Your task to perform on an android device: turn on improve location accuracy Image 0: 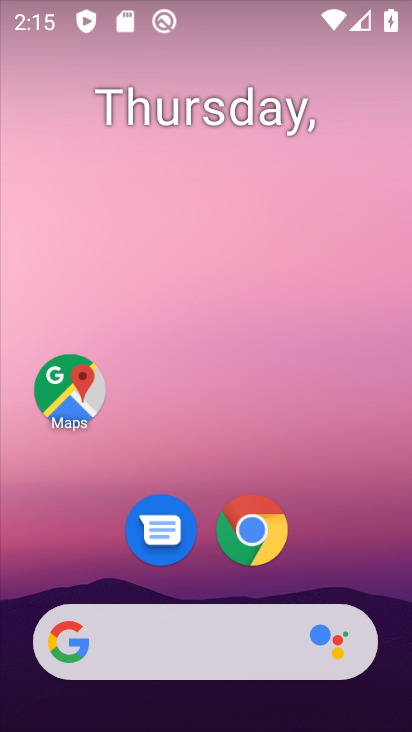
Step 0: drag from (216, 715) to (181, 20)
Your task to perform on an android device: turn on improve location accuracy Image 1: 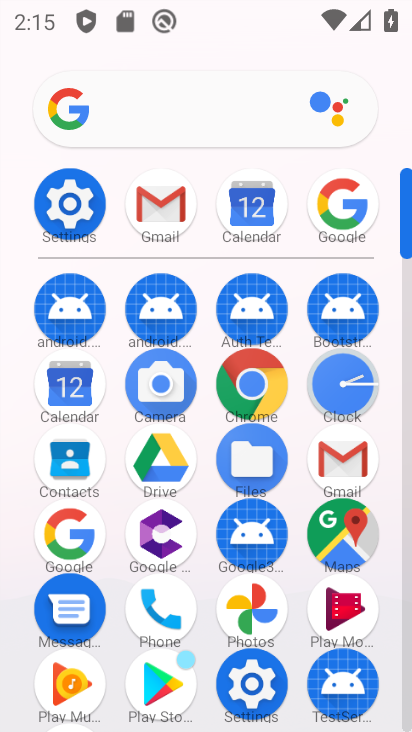
Step 1: click (73, 205)
Your task to perform on an android device: turn on improve location accuracy Image 2: 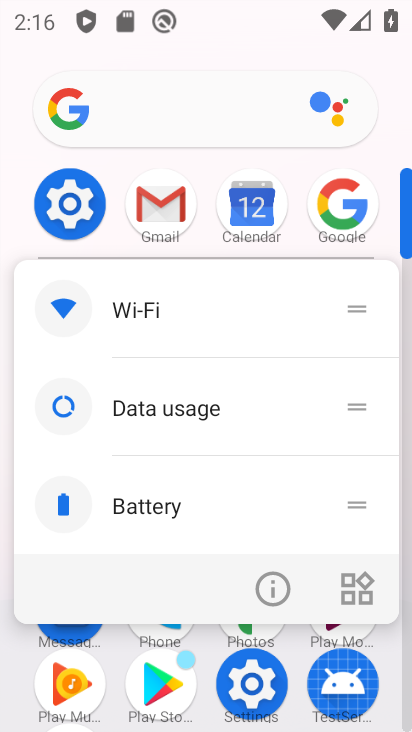
Step 2: click (73, 205)
Your task to perform on an android device: turn on improve location accuracy Image 3: 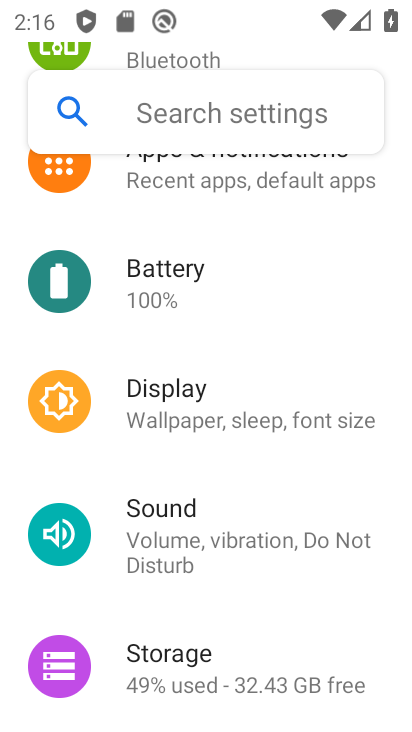
Step 3: drag from (225, 642) to (168, 115)
Your task to perform on an android device: turn on improve location accuracy Image 4: 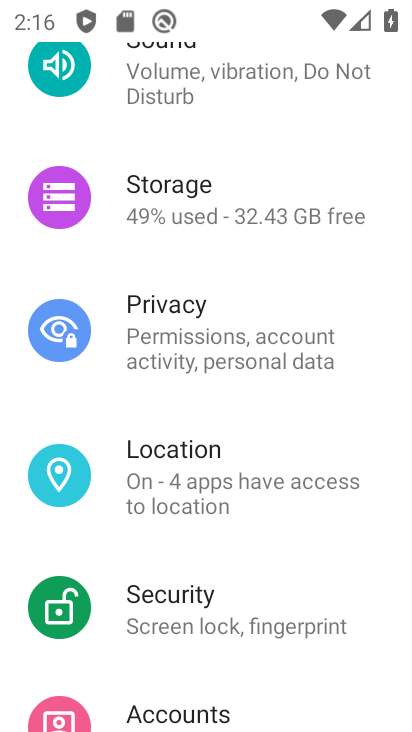
Step 4: click (244, 482)
Your task to perform on an android device: turn on improve location accuracy Image 5: 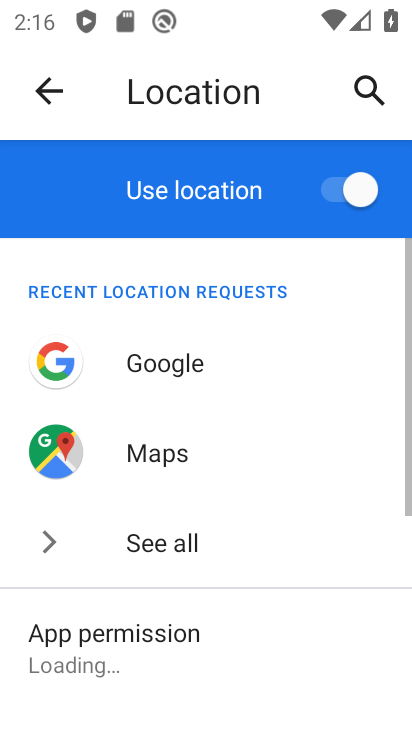
Step 5: drag from (208, 674) to (148, 282)
Your task to perform on an android device: turn on improve location accuracy Image 6: 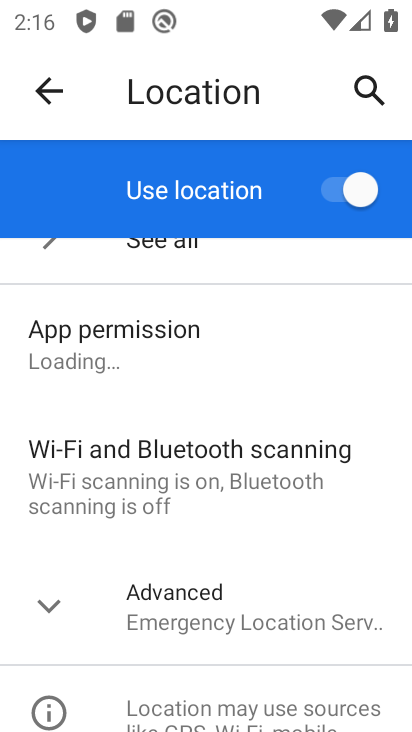
Step 6: click (252, 614)
Your task to perform on an android device: turn on improve location accuracy Image 7: 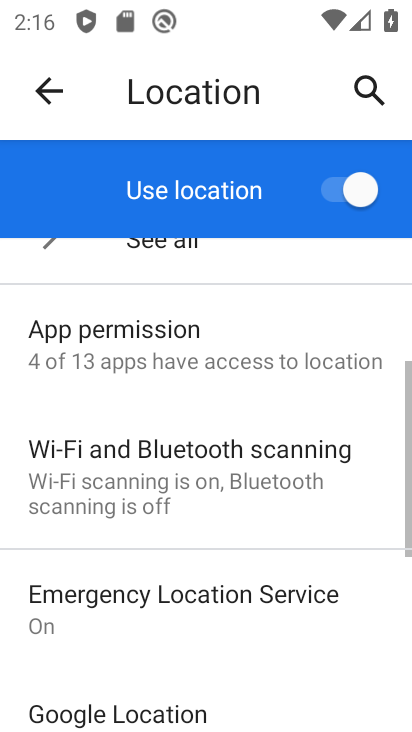
Step 7: drag from (329, 700) to (293, 78)
Your task to perform on an android device: turn on improve location accuracy Image 8: 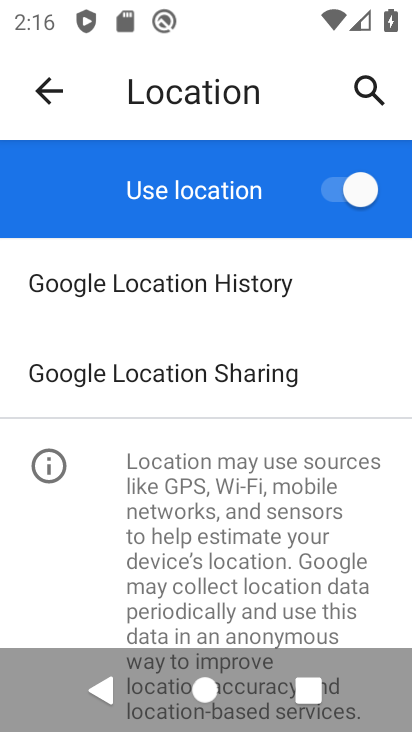
Step 8: drag from (301, 339) to (272, 709)
Your task to perform on an android device: turn on improve location accuracy Image 9: 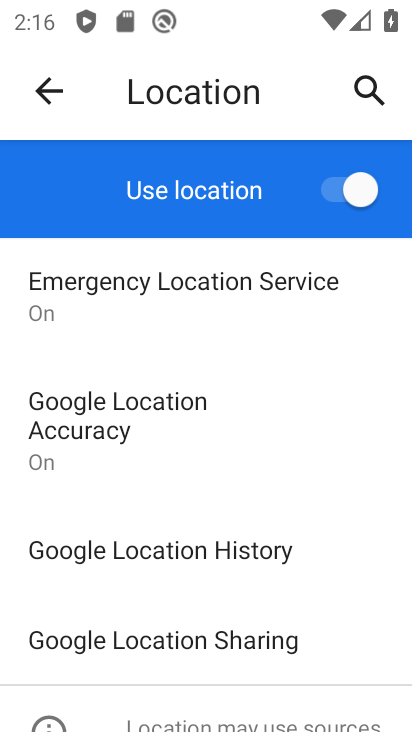
Step 9: drag from (229, 291) to (242, 643)
Your task to perform on an android device: turn on improve location accuracy Image 10: 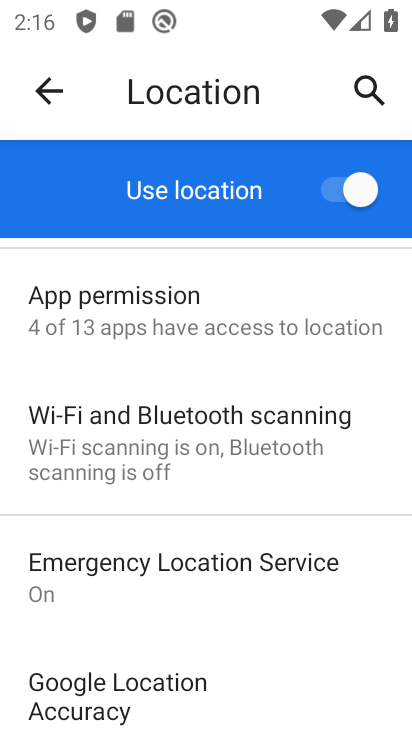
Step 10: drag from (208, 634) to (163, 65)
Your task to perform on an android device: turn on improve location accuracy Image 11: 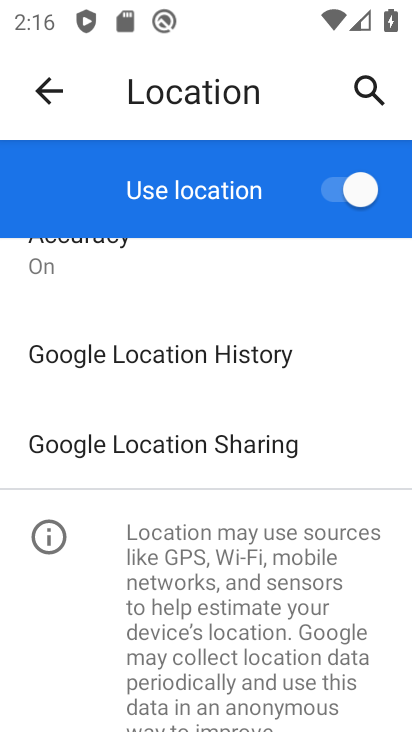
Step 11: drag from (239, 331) to (227, 637)
Your task to perform on an android device: turn on improve location accuracy Image 12: 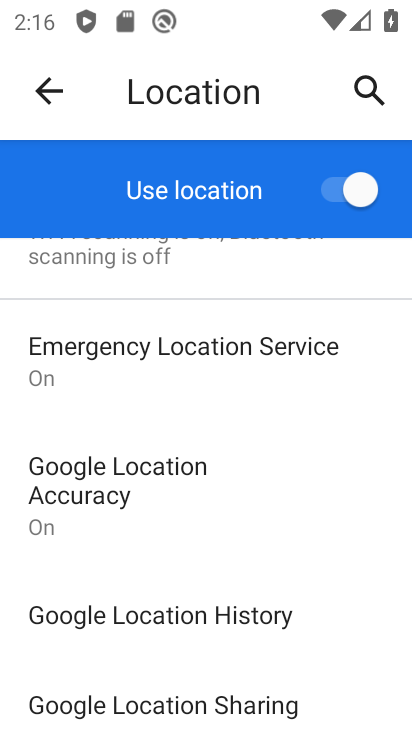
Step 12: click (66, 517)
Your task to perform on an android device: turn on improve location accuracy Image 13: 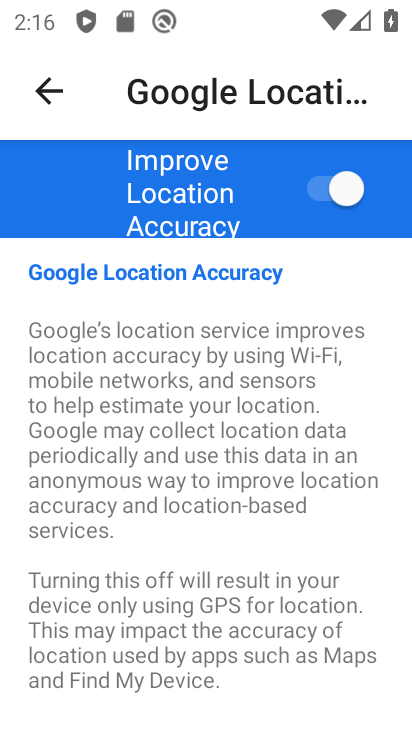
Step 13: task complete